Your task to perform on an android device: check the backup settings in the google photos Image 0: 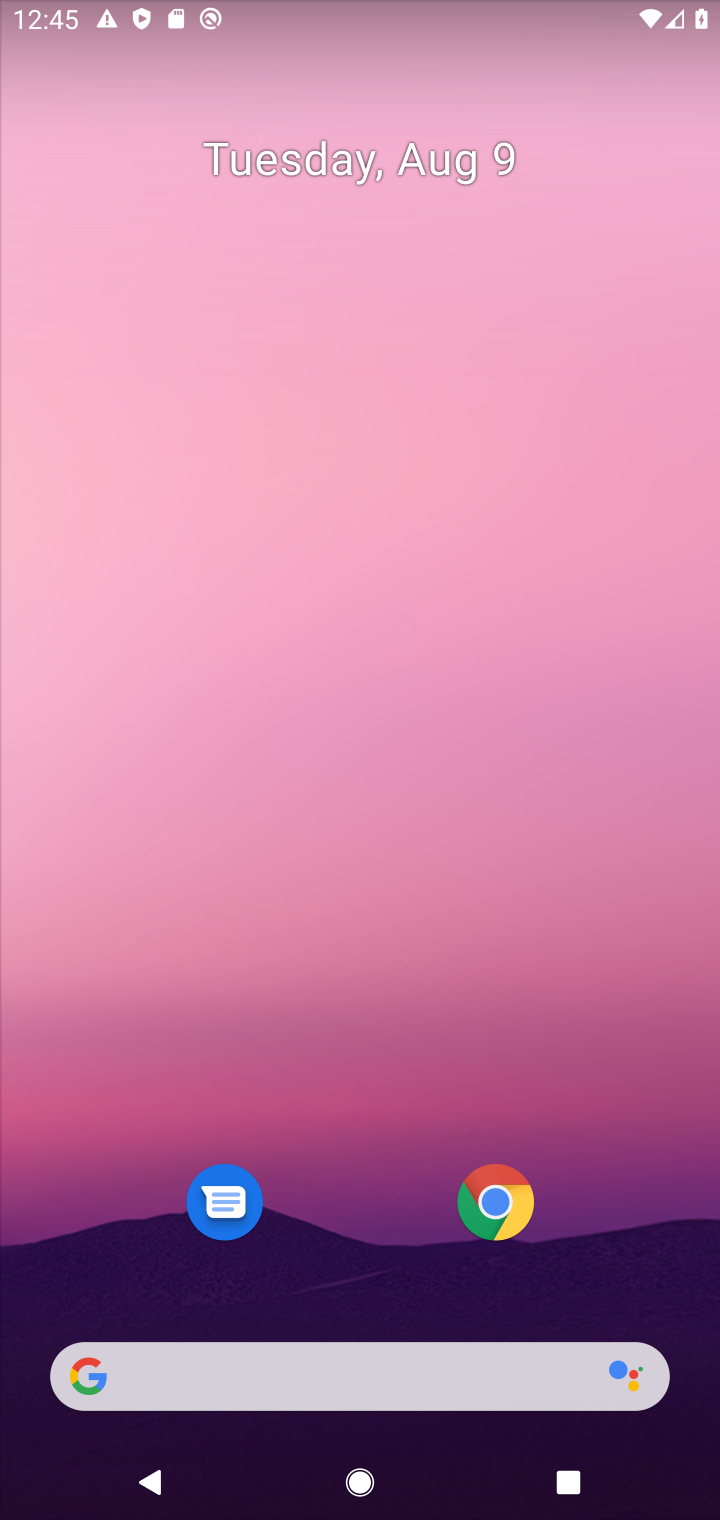
Step 0: press home button
Your task to perform on an android device: check the backup settings in the google photos Image 1: 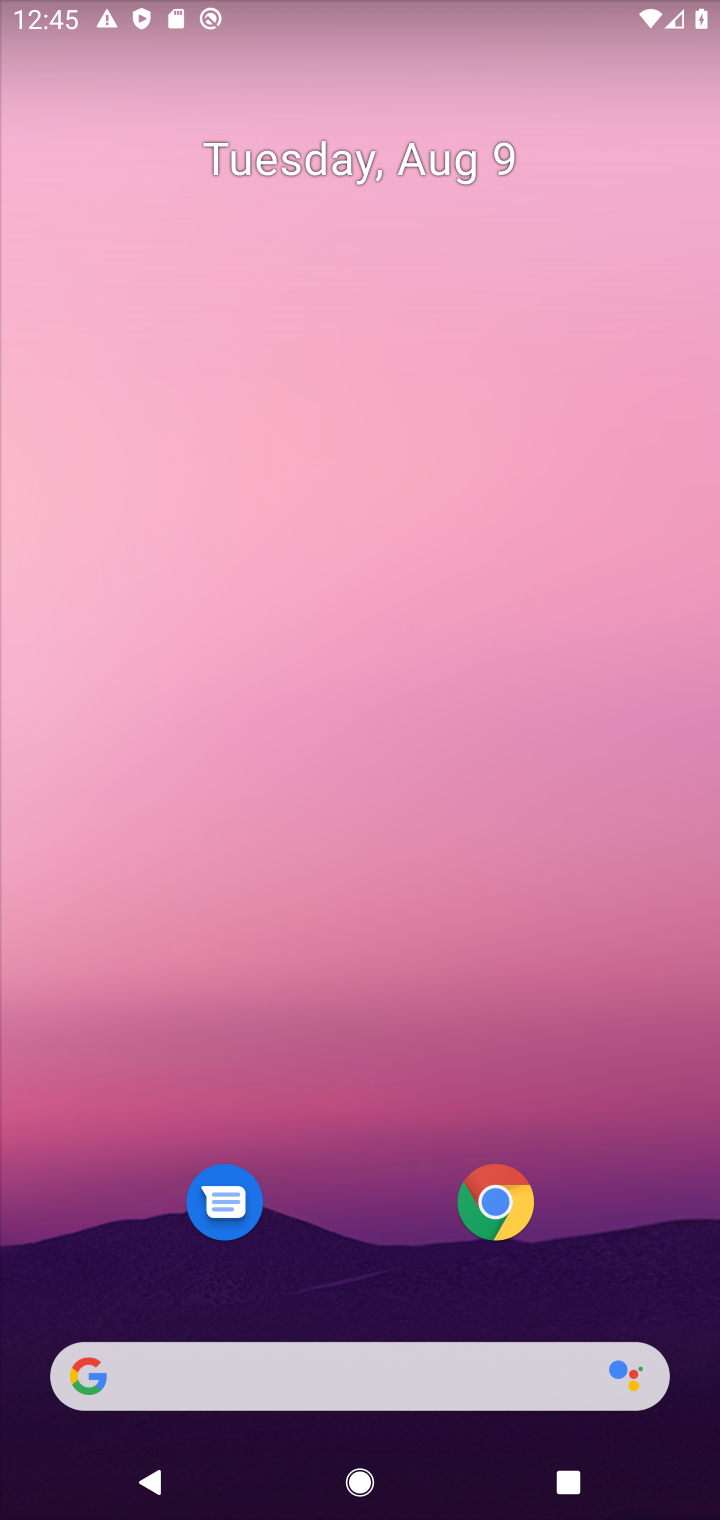
Step 1: drag from (364, 1309) to (357, 44)
Your task to perform on an android device: check the backup settings in the google photos Image 2: 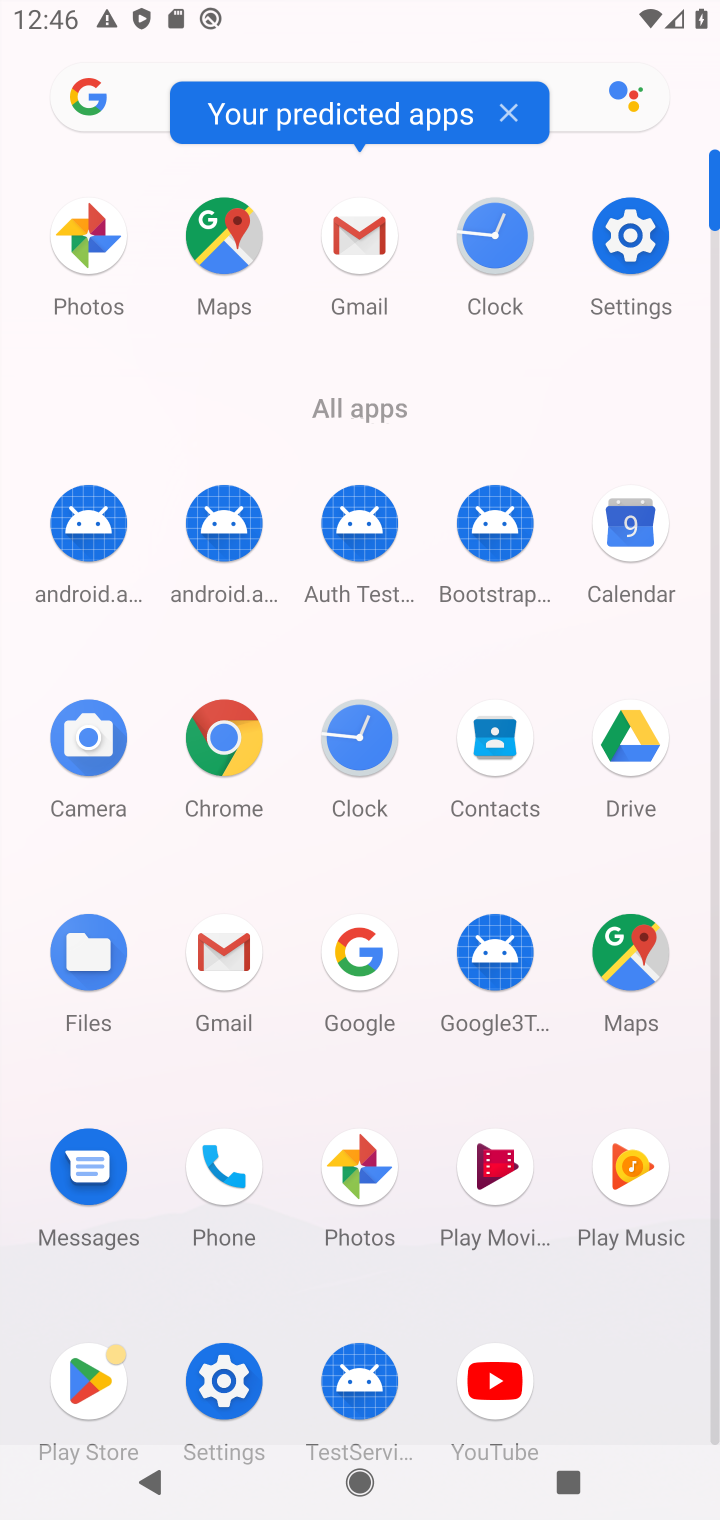
Step 2: click (363, 1153)
Your task to perform on an android device: check the backup settings in the google photos Image 3: 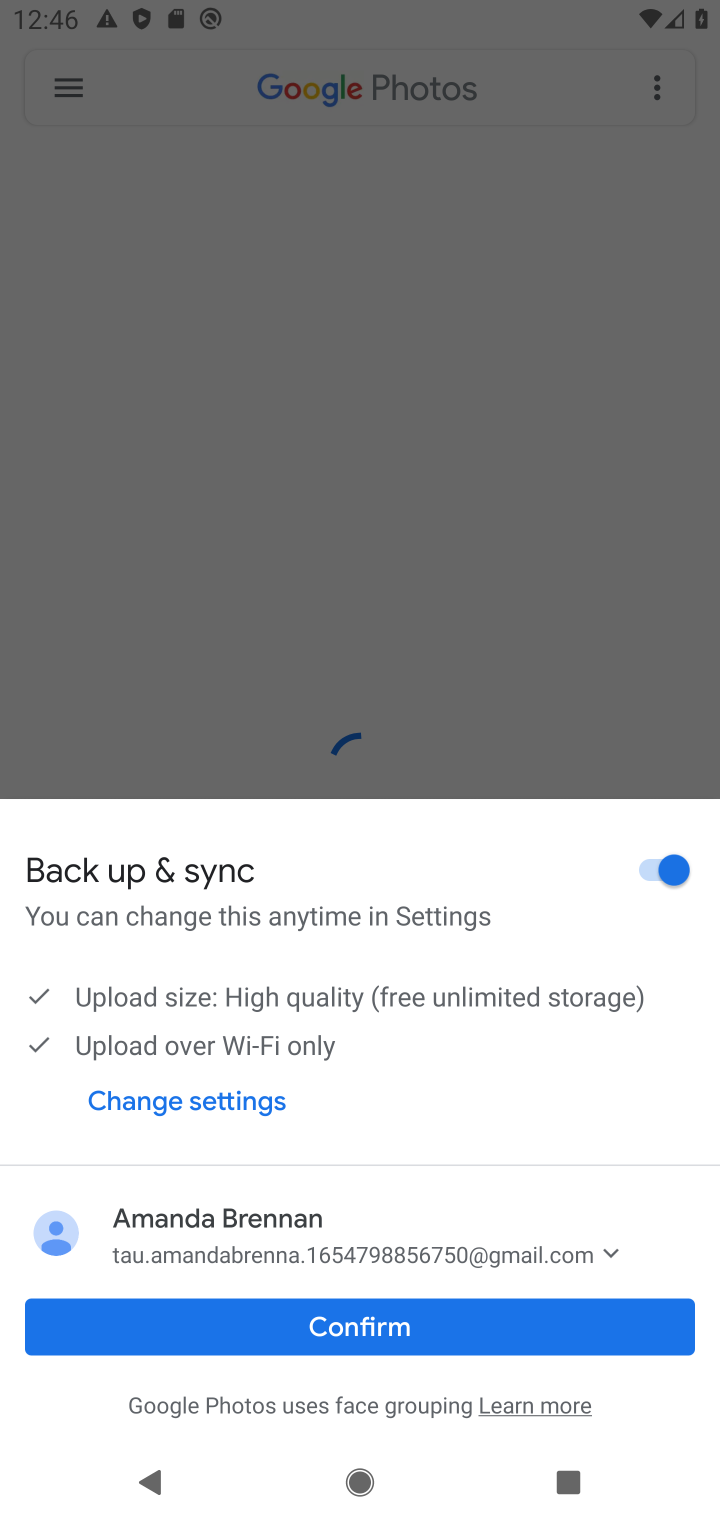
Step 3: click (381, 1324)
Your task to perform on an android device: check the backup settings in the google photos Image 4: 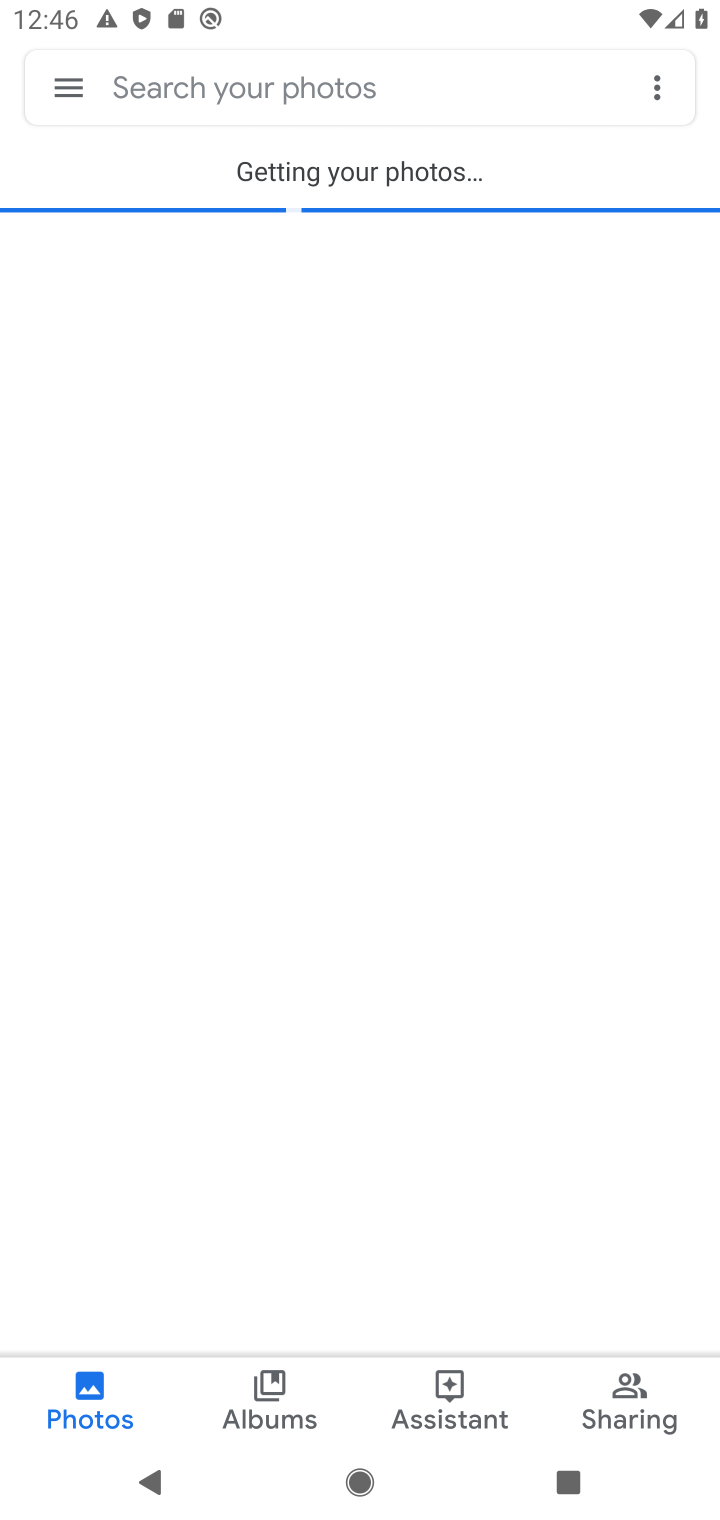
Step 4: click (56, 88)
Your task to perform on an android device: check the backup settings in the google photos Image 5: 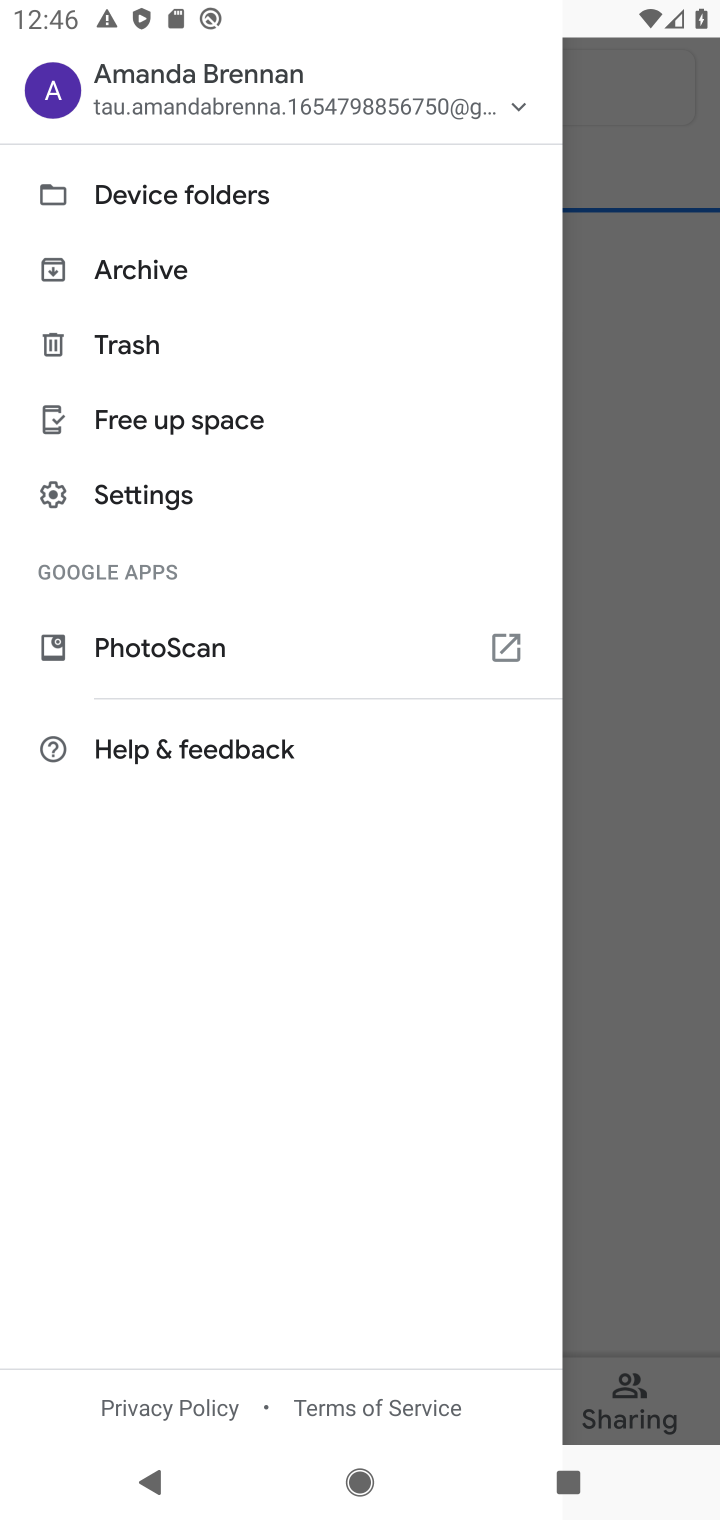
Step 5: click (172, 487)
Your task to perform on an android device: check the backup settings in the google photos Image 6: 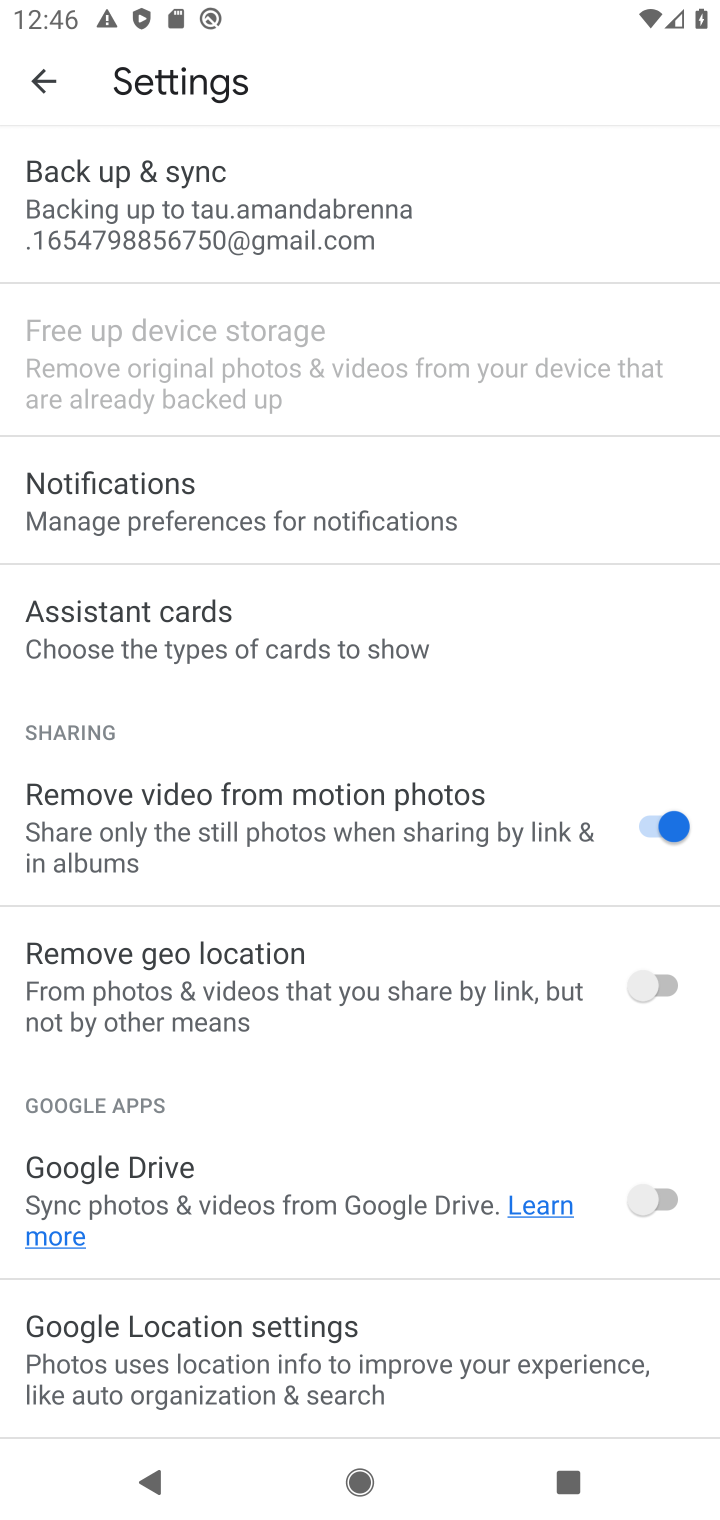
Step 6: click (205, 166)
Your task to perform on an android device: check the backup settings in the google photos Image 7: 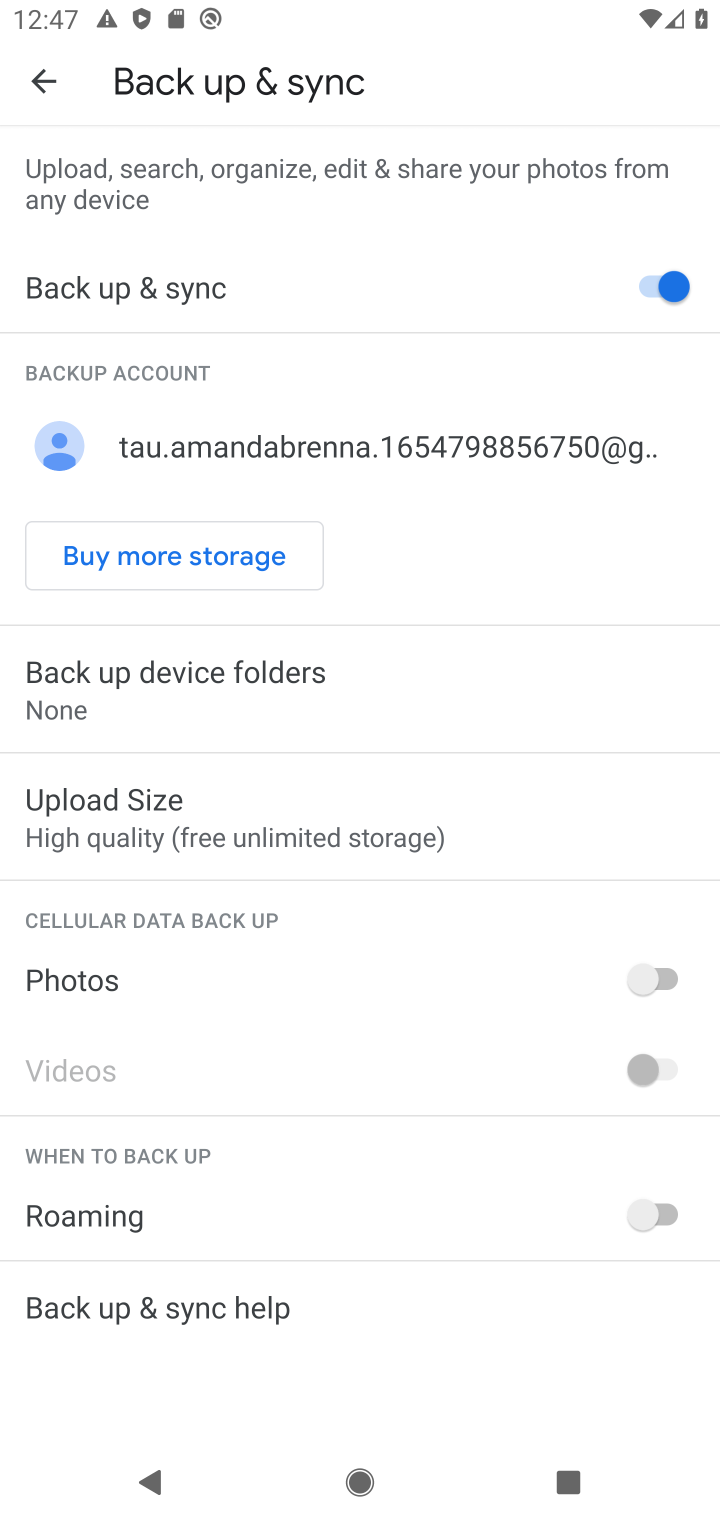
Step 7: task complete